Your task to perform on an android device: clear all cookies in the chrome app Image 0: 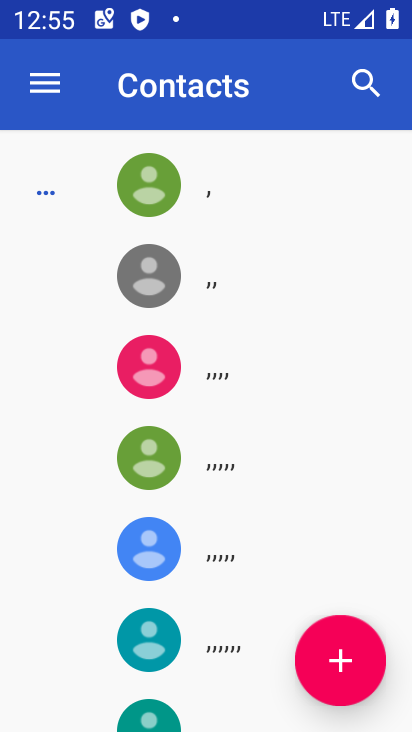
Step 0: press home button
Your task to perform on an android device: clear all cookies in the chrome app Image 1: 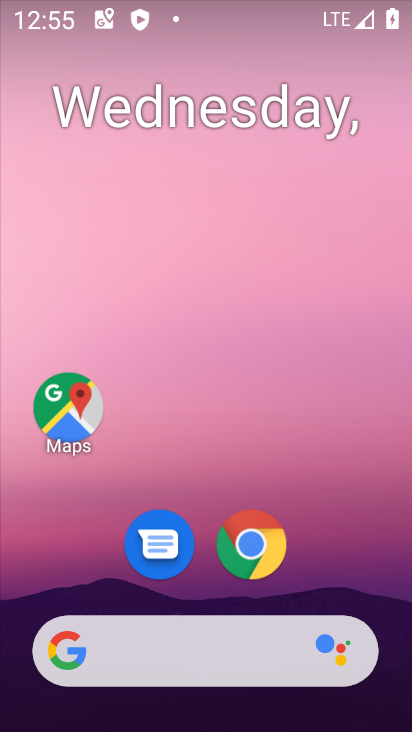
Step 1: drag from (383, 621) to (323, 97)
Your task to perform on an android device: clear all cookies in the chrome app Image 2: 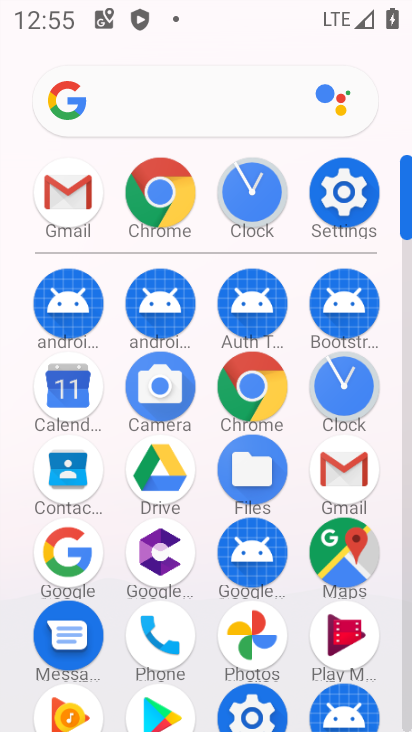
Step 2: click (171, 222)
Your task to perform on an android device: clear all cookies in the chrome app Image 3: 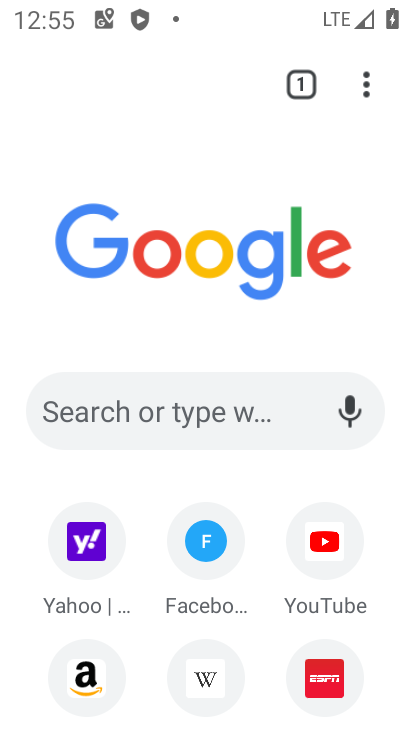
Step 3: click (367, 85)
Your task to perform on an android device: clear all cookies in the chrome app Image 4: 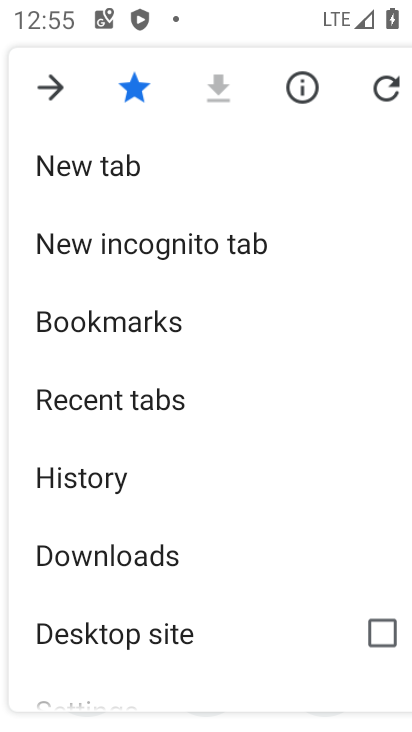
Step 4: click (209, 476)
Your task to perform on an android device: clear all cookies in the chrome app Image 5: 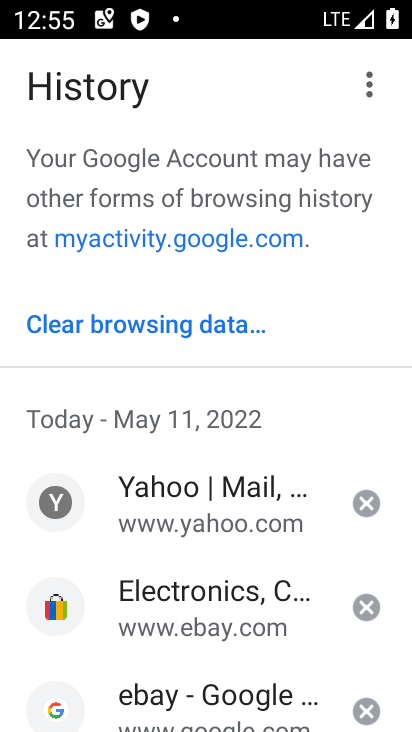
Step 5: click (129, 316)
Your task to perform on an android device: clear all cookies in the chrome app Image 6: 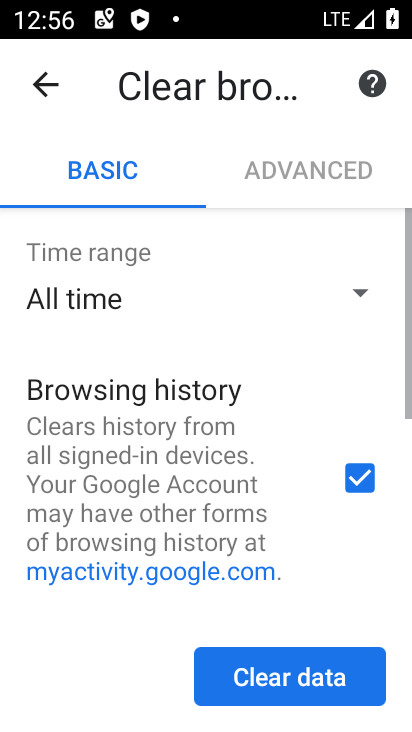
Step 6: click (319, 675)
Your task to perform on an android device: clear all cookies in the chrome app Image 7: 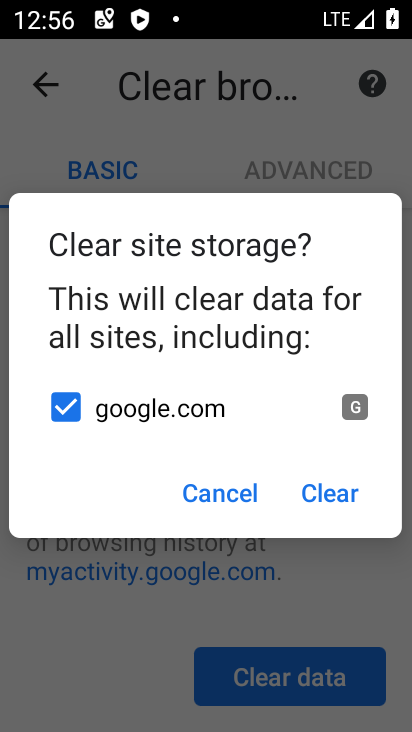
Step 7: click (329, 492)
Your task to perform on an android device: clear all cookies in the chrome app Image 8: 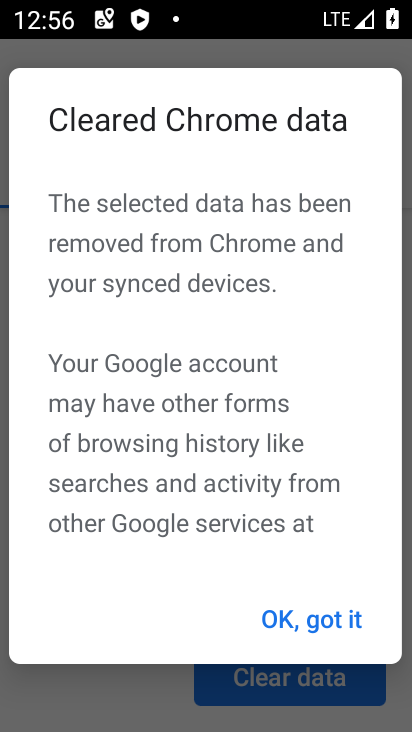
Step 8: click (323, 621)
Your task to perform on an android device: clear all cookies in the chrome app Image 9: 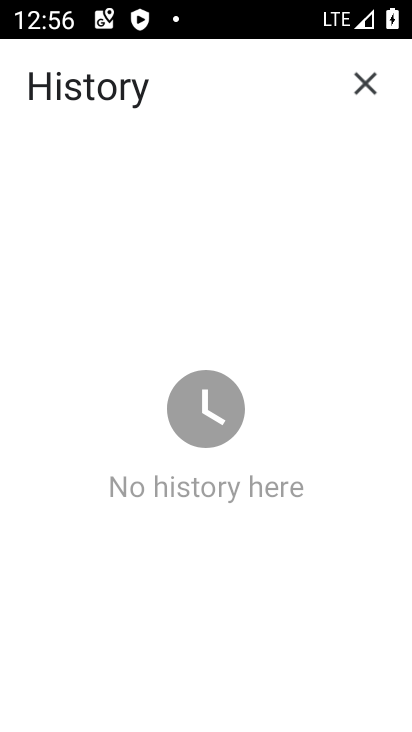
Step 9: task complete